Your task to perform on an android device: Go to wifi settings Image 0: 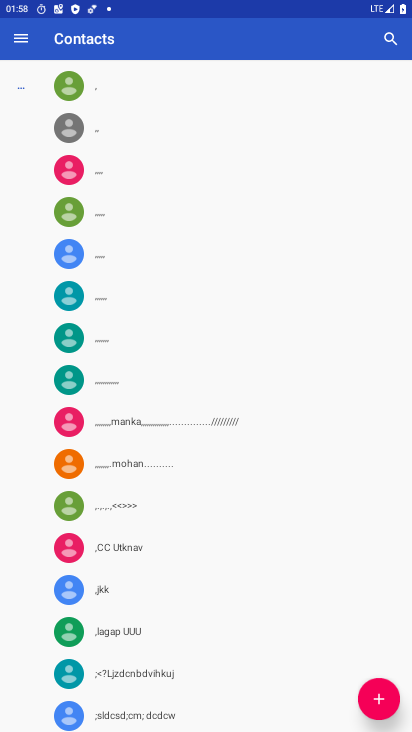
Step 0: press home button
Your task to perform on an android device: Go to wifi settings Image 1: 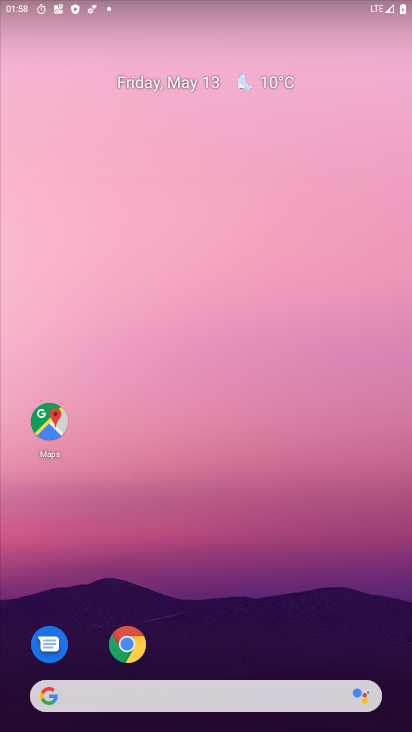
Step 1: drag from (179, 669) to (352, 11)
Your task to perform on an android device: Go to wifi settings Image 2: 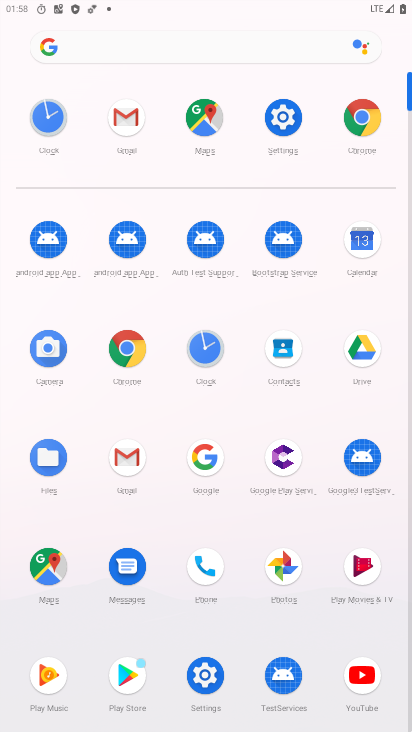
Step 2: click (288, 102)
Your task to perform on an android device: Go to wifi settings Image 3: 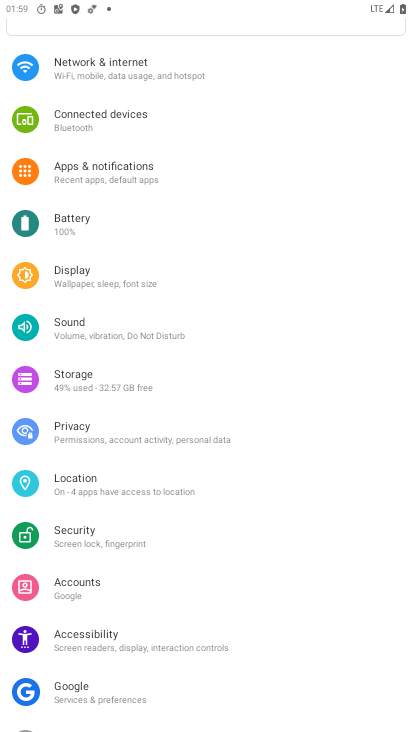
Step 3: click (211, 69)
Your task to perform on an android device: Go to wifi settings Image 4: 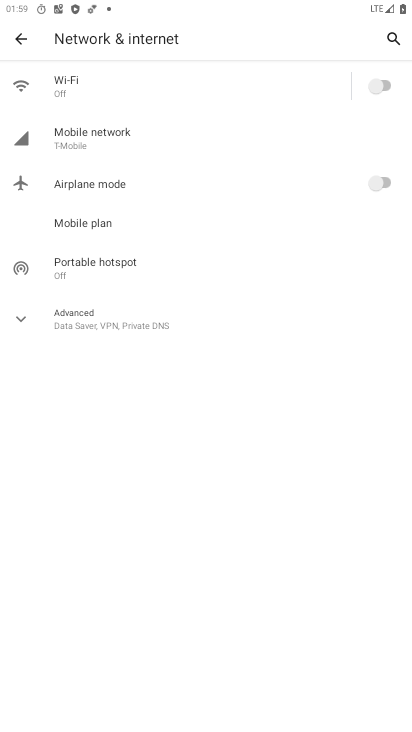
Step 4: click (100, 81)
Your task to perform on an android device: Go to wifi settings Image 5: 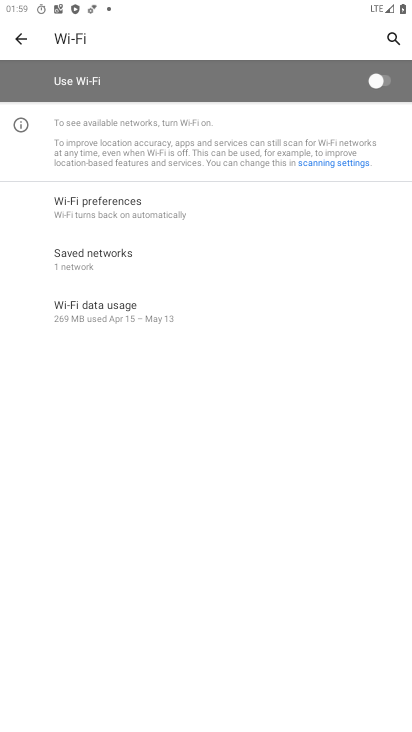
Step 5: task complete